Your task to perform on an android device: Check the news Image 0: 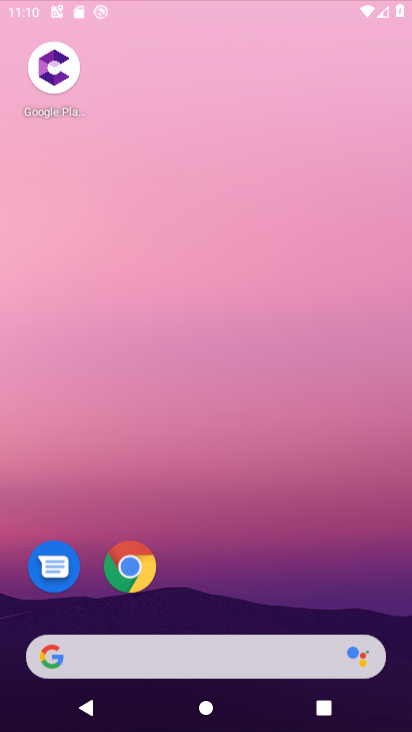
Step 0: drag from (202, 599) to (272, 86)
Your task to perform on an android device: Check the news Image 1: 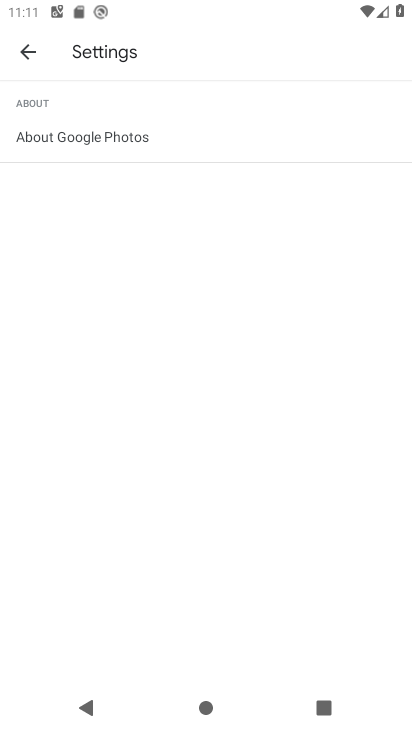
Step 1: press home button
Your task to perform on an android device: Check the news Image 2: 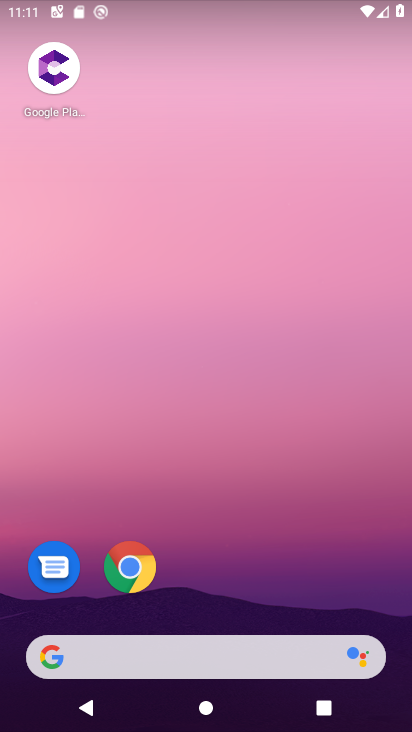
Step 2: click (221, 642)
Your task to perform on an android device: Check the news Image 3: 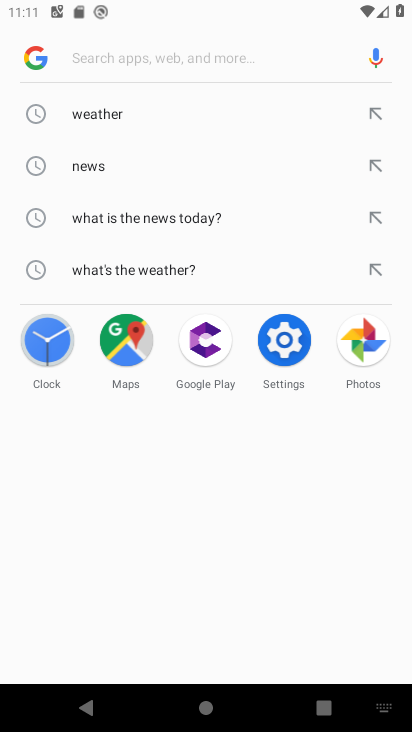
Step 3: click (135, 174)
Your task to perform on an android device: Check the news Image 4: 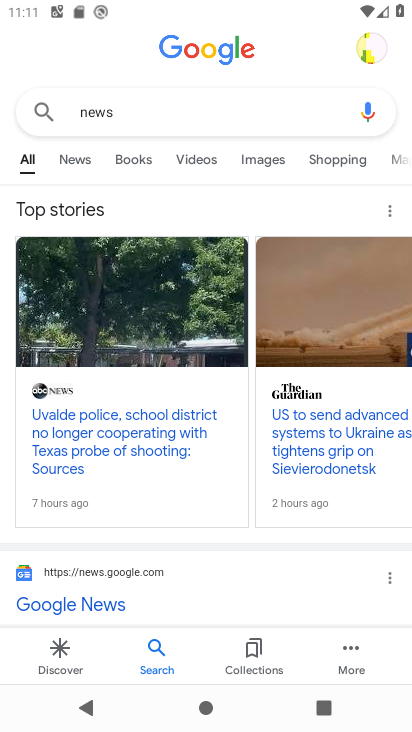
Step 4: task complete